Your task to perform on an android device: toggle wifi Image 0: 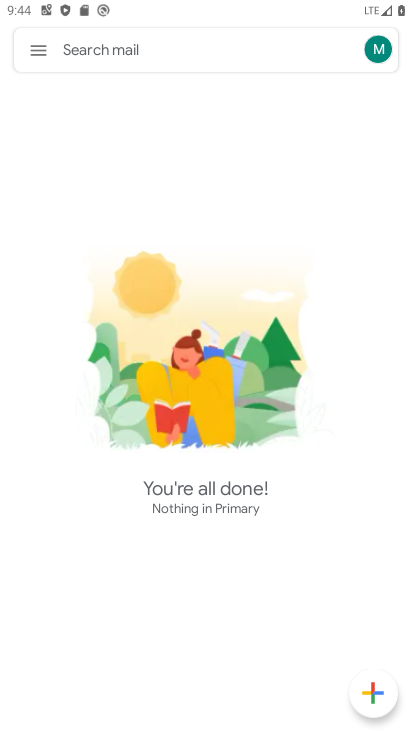
Step 0: press home button
Your task to perform on an android device: toggle wifi Image 1: 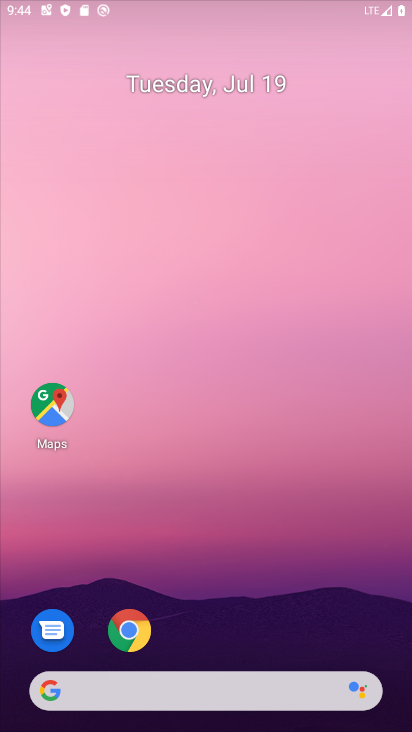
Step 1: drag from (208, 622) to (253, 60)
Your task to perform on an android device: toggle wifi Image 2: 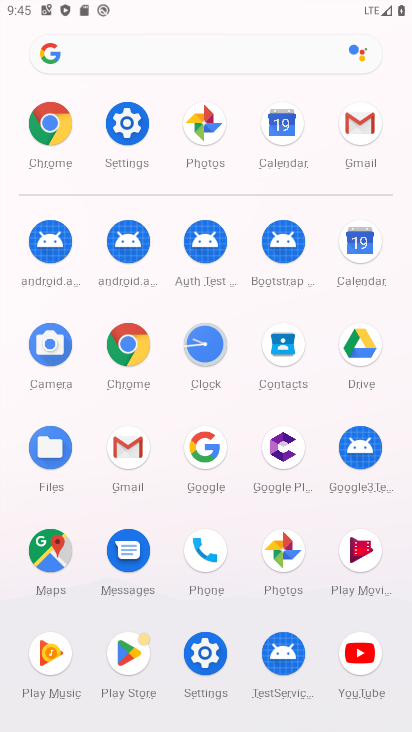
Step 2: click (131, 116)
Your task to perform on an android device: toggle wifi Image 3: 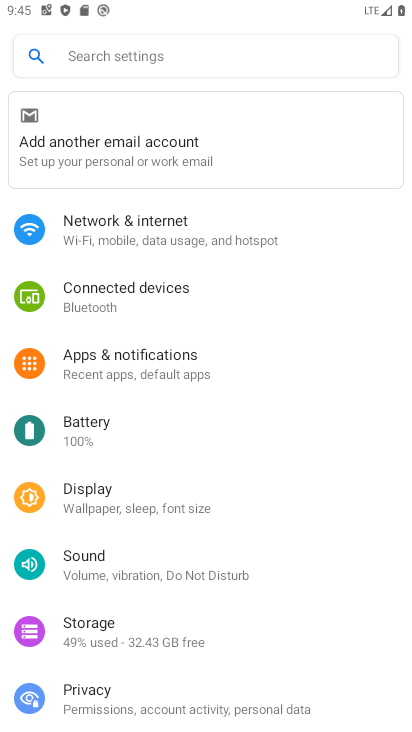
Step 3: click (157, 220)
Your task to perform on an android device: toggle wifi Image 4: 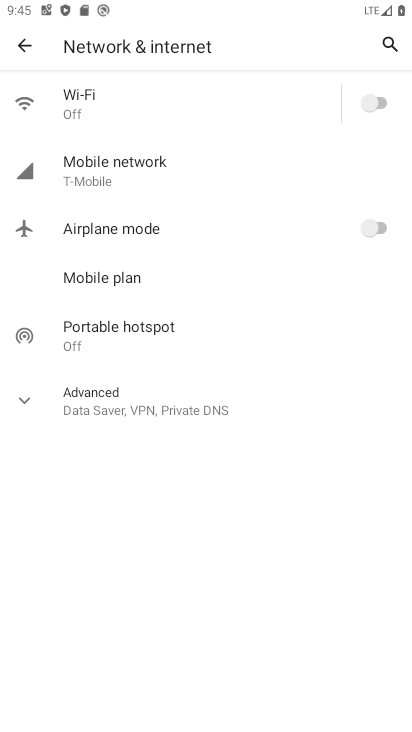
Step 4: click (377, 100)
Your task to perform on an android device: toggle wifi Image 5: 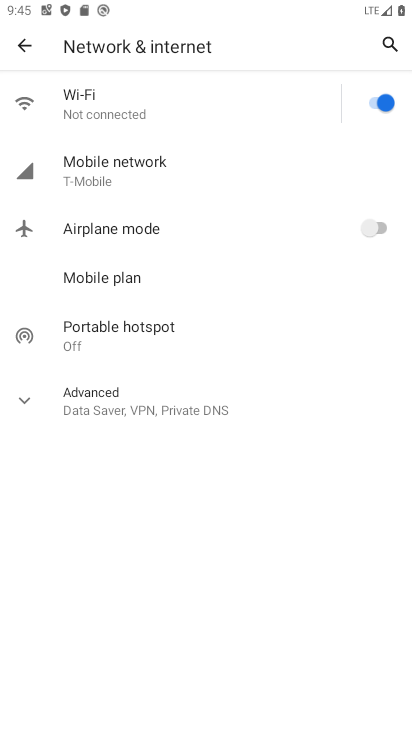
Step 5: task complete